Your task to perform on an android device: Toggle the flashlight Image 0: 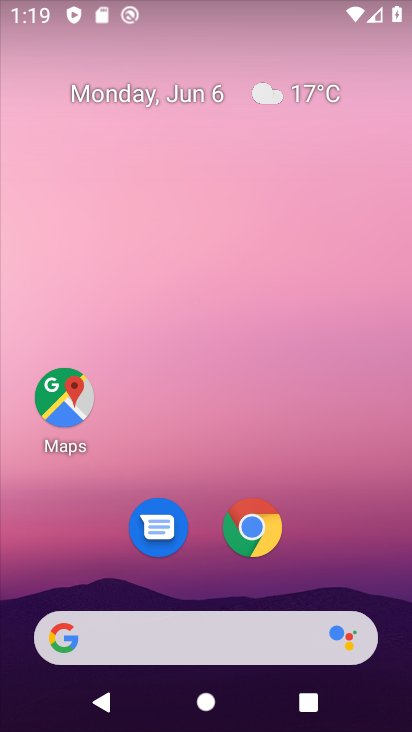
Step 0: drag from (236, 727) to (234, 17)
Your task to perform on an android device: Toggle the flashlight Image 1: 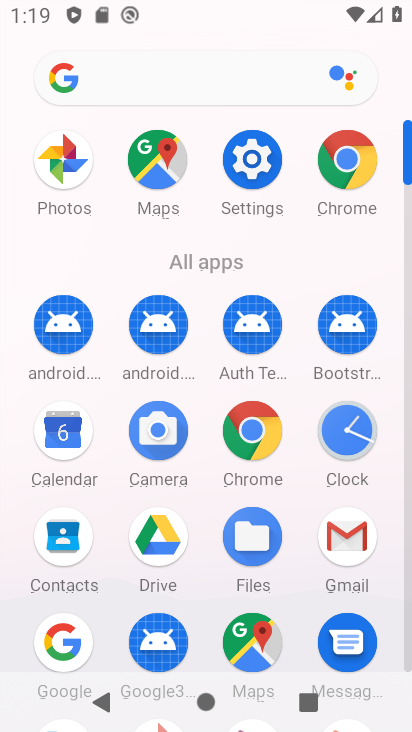
Step 1: click (246, 161)
Your task to perform on an android device: Toggle the flashlight Image 2: 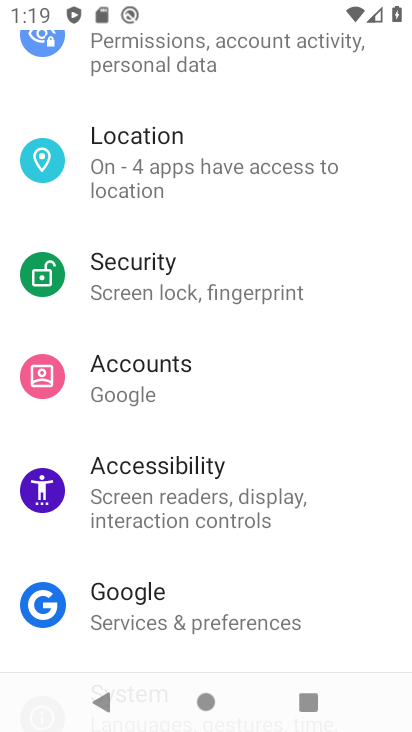
Step 2: task complete